Your task to perform on an android device: What's the weather today? Image 0: 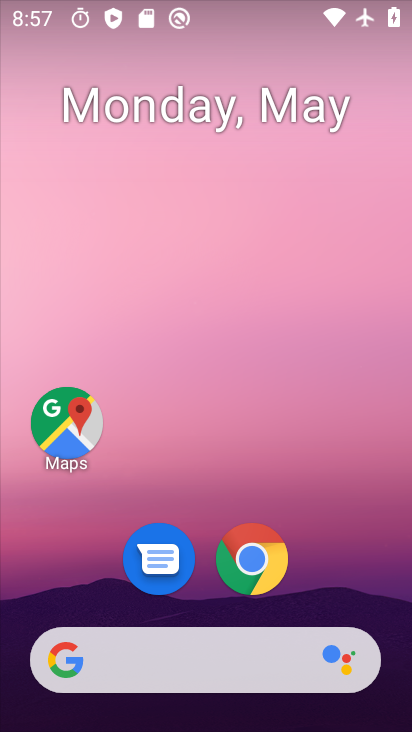
Step 0: click (123, 665)
Your task to perform on an android device: What's the weather today? Image 1: 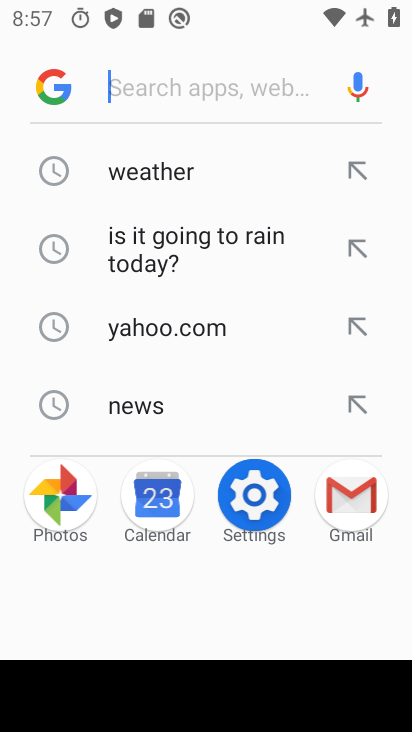
Step 1: type "what's the weather today"
Your task to perform on an android device: What's the weather today? Image 2: 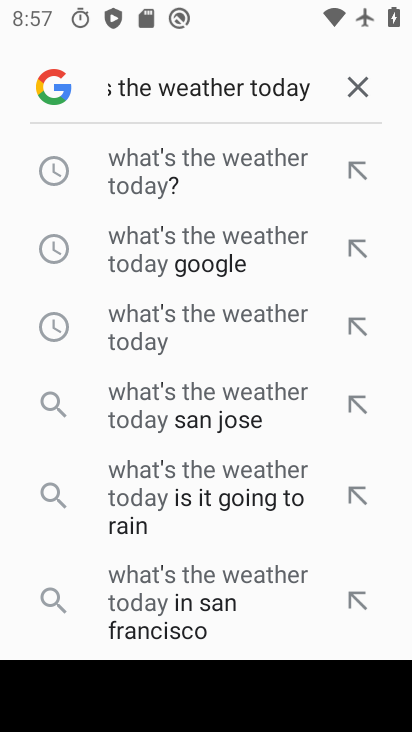
Step 2: click (270, 153)
Your task to perform on an android device: What's the weather today? Image 3: 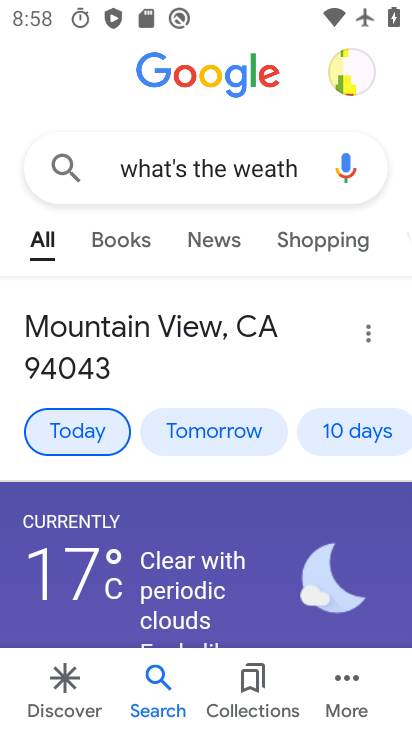
Step 3: task complete